Your task to perform on an android device: toggle sleep mode Image 0: 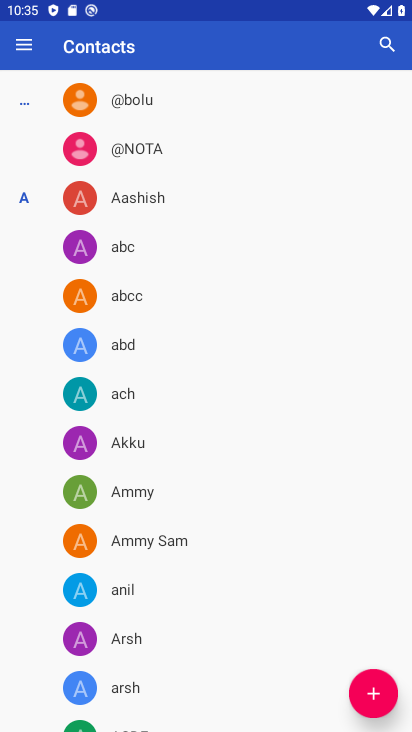
Step 0: press home button
Your task to perform on an android device: toggle sleep mode Image 1: 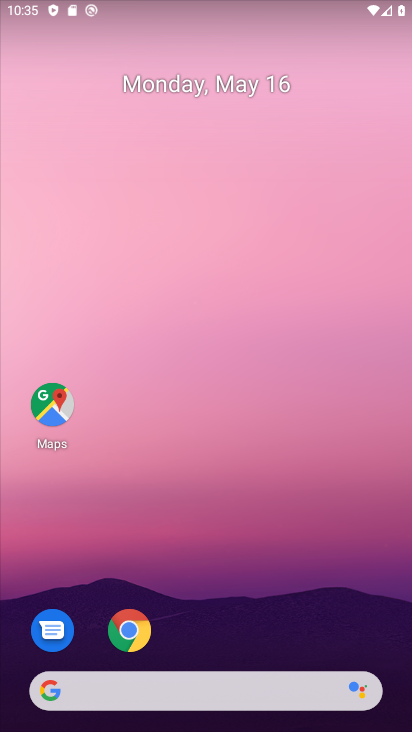
Step 1: drag from (221, 611) to (201, 30)
Your task to perform on an android device: toggle sleep mode Image 2: 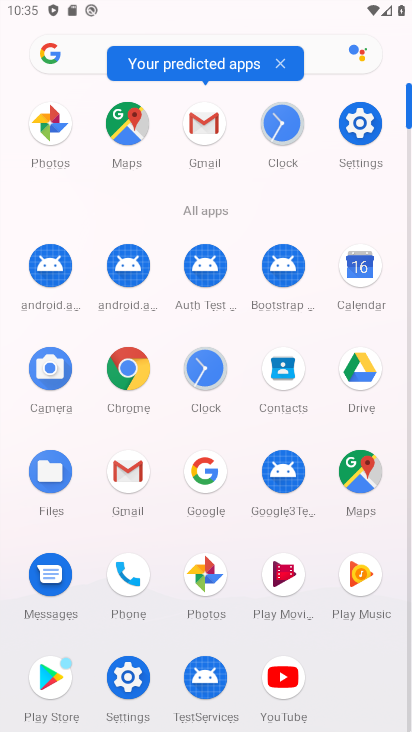
Step 2: click (372, 128)
Your task to perform on an android device: toggle sleep mode Image 3: 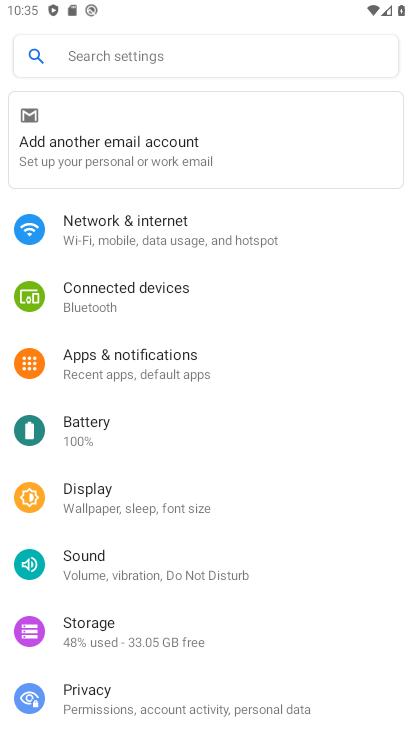
Step 3: click (181, 507)
Your task to perform on an android device: toggle sleep mode Image 4: 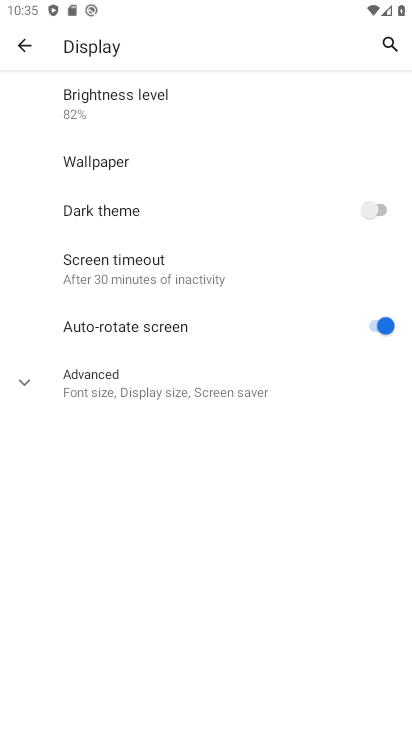
Step 4: click (226, 386)
Your task to perform on an android device: toggle sleep mode Image 5: 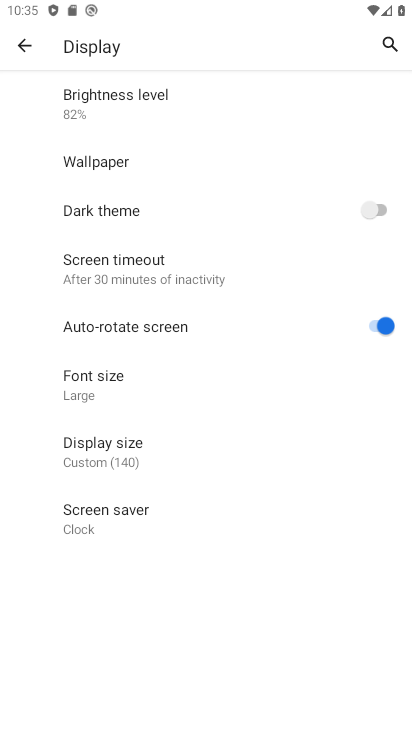
Step 5: task complete